Your task to perform on an android device: Show the shopping cart on target.com. Search for razer blade on target.com, select the first entry, and add it to the cart. Image 0: 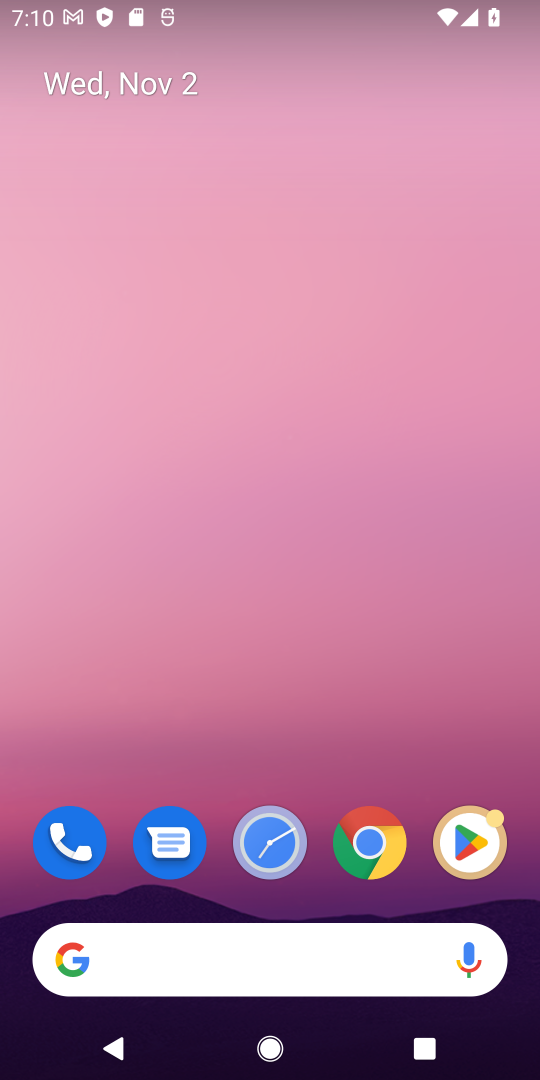
Step 0: drag from (300, 909) to (303, 197)
Your task to perform on an android device: Show the shopping cart on target.com. Search for razer blade on target.com, select the first entry, and add it to the cart. Image 1: 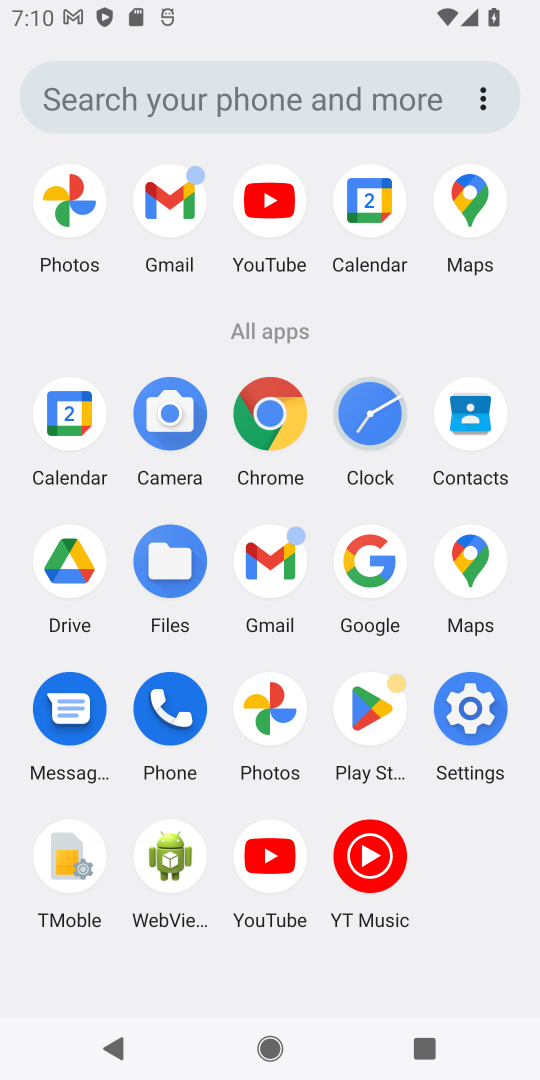
Step 1: click (351, 561)
Your task to perform on an android device: Show the shopping cart on target.com. Search for razer blade on target.com, select the first entry, and add it to the cart. Image 2: 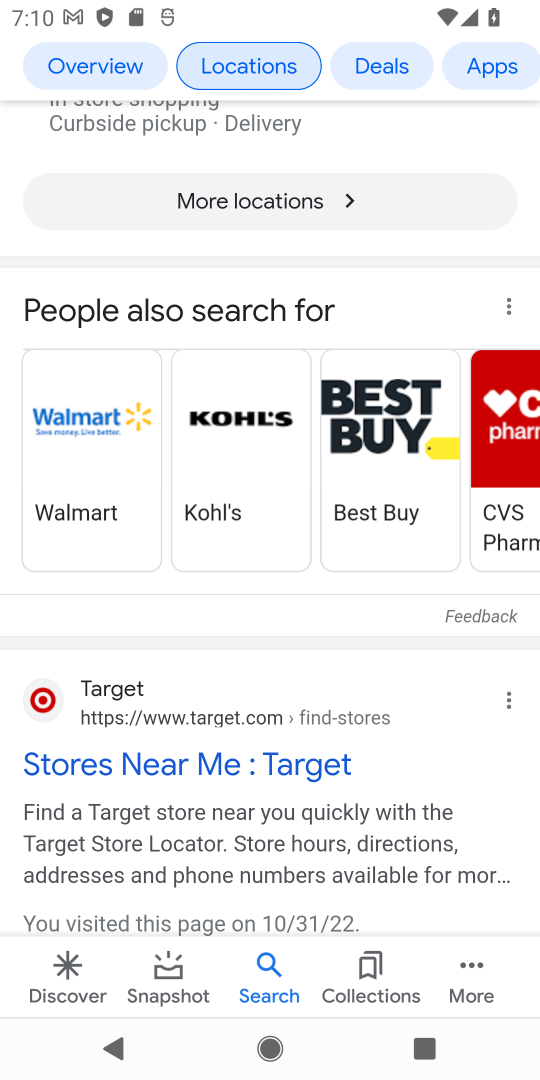
Step 2: drag from (193, 229) to (163, 547)
Your task to perform on an android device: Show the shopping cart on target.com. Search for razer blade on target.com, select the first entry, and add it to the cart. Image 3: 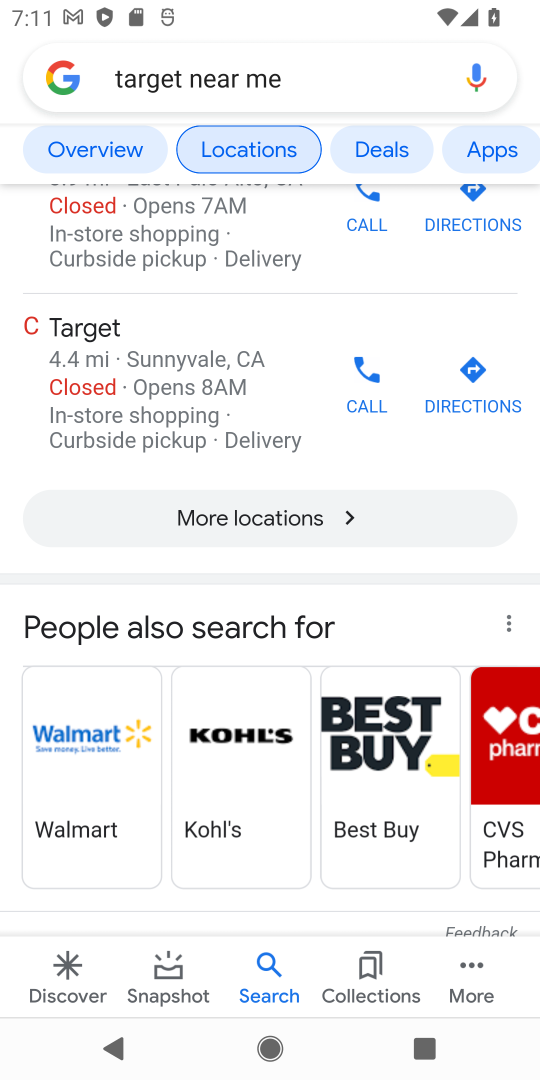
Step 3: click (321, 66)
Your task to perform on an android device: Show the shopping cart on target.com. Search for razer blade on target.com, select the first entry, and add it to the cart. Image 4: 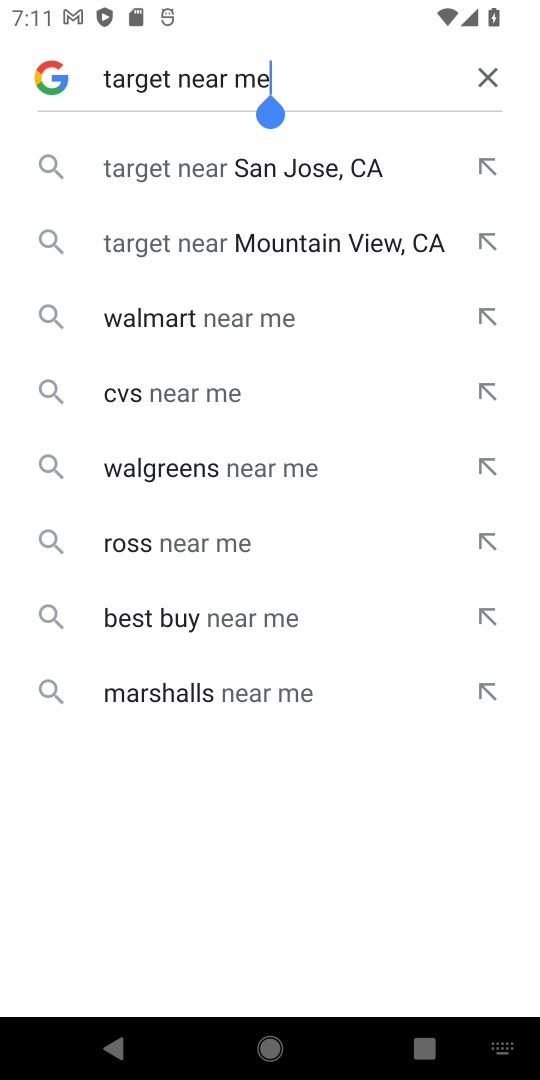
Step 4: click (482, 82)
Your task to perform on an android device: Show the shopping cart on target.com. Search for razer blade on target.com, select the first entry, and add it to the cart. Image 5: 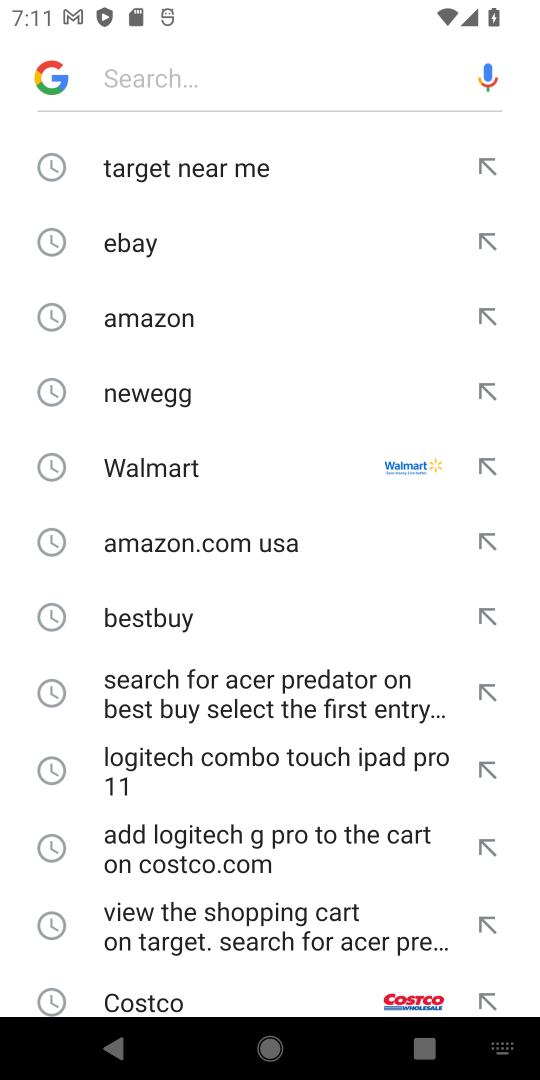
Step 5: click (152, 169)
Your task to perform on an android device: Show the shopping cart on target.com. Search for razer blade on target.com, select the first entry, and add it to the cart. Image 6: 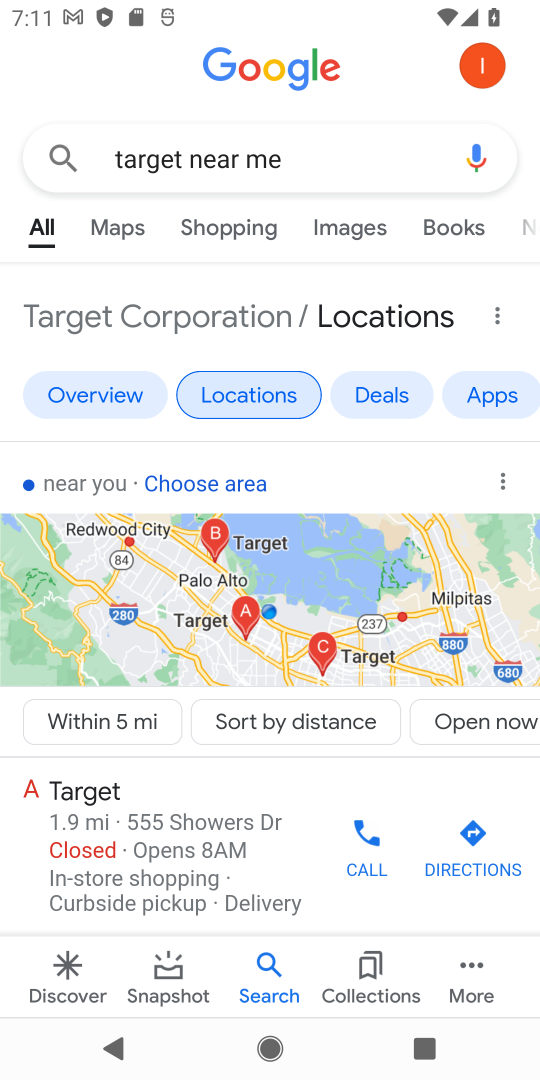
Step 6: drag from (123, 717) to (228, 204)
Your task to perform on an android device: Show the shopping cart on target.com. Search for razer blade on target.com, select the first entry, and add it to the cart. Image 7: 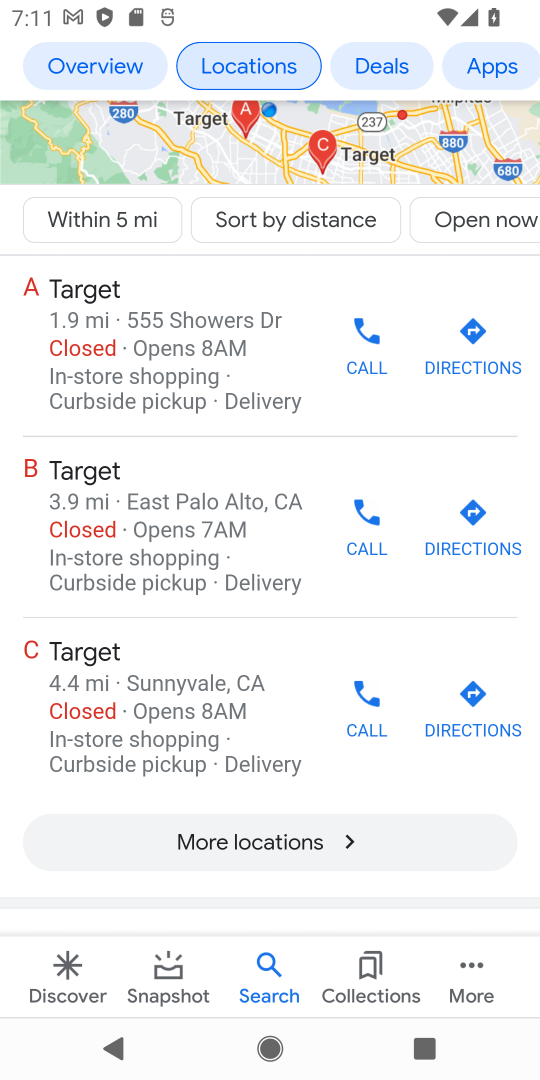
Step 7: drag from (81, 736) to (180, 349)
Your task to perform on an android device: Show the shopping cart on target.com. Search for razer blade on target.com, select the first entry, and add it to the cart. Image 8: 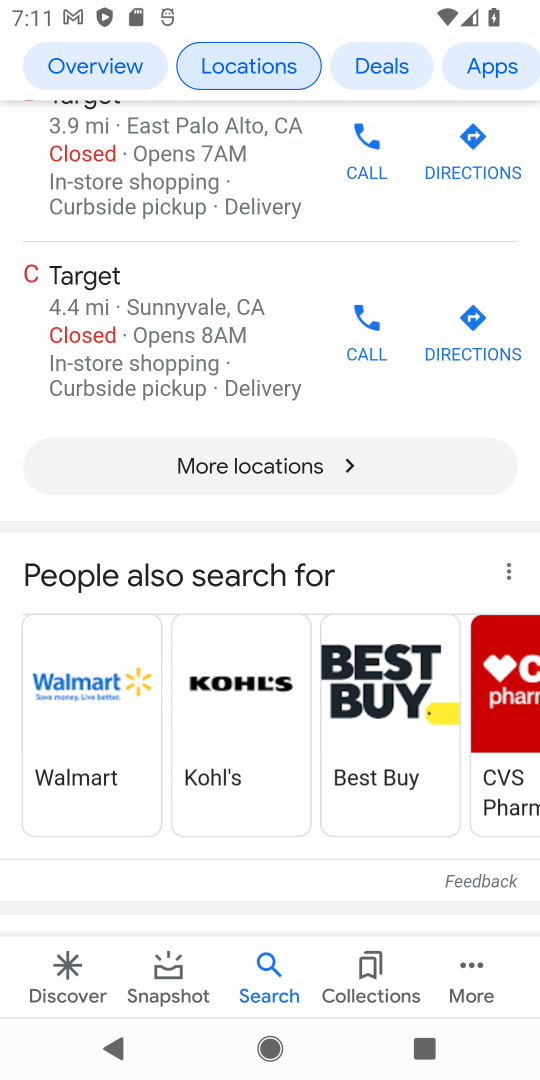
Step 8: drag from (103, 752) to (301, 178)
Your task to perform on an android device: Show the shopping cart on target.com. Search for razer blade on target.com, select the first entry, and add it to the cart. Image 9: 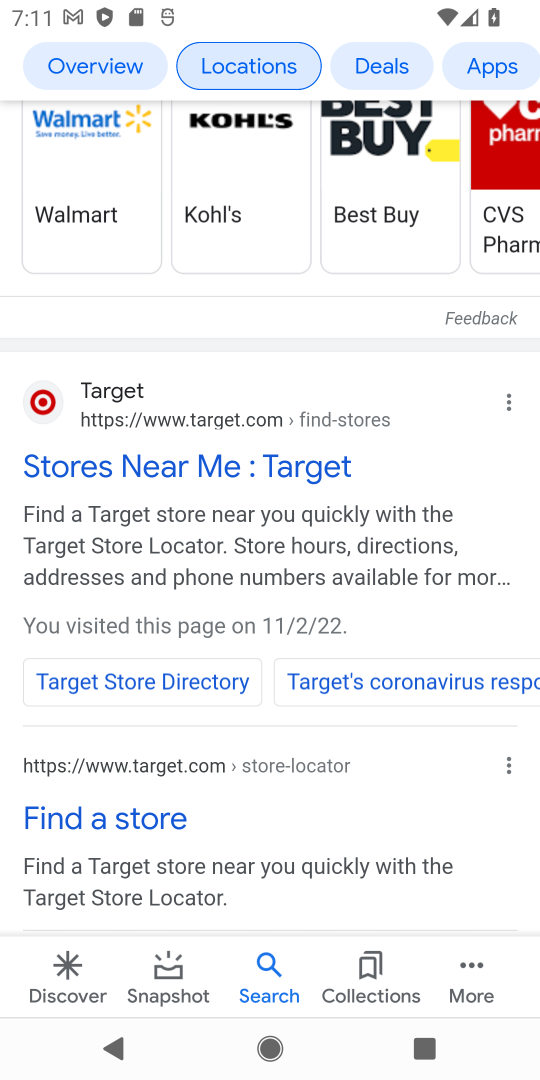
Step 9: click (40, 397)
Your task to perform on an android device: Show the shopping cart on target.com. Search for razer blade on target.com, select the first entry, and add it to the cart. Image 10: 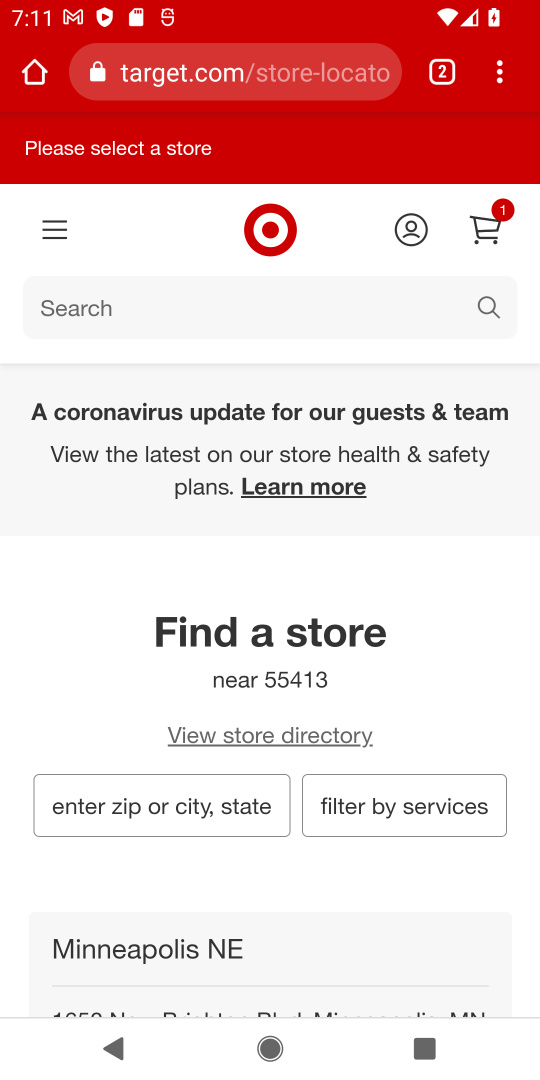
Step 10: click (137, 294)
Your task to perform on an android device: Show the shopping cart on target.com. Search for razer blade on target.com, select the first entry, and add it to the cart. Image 11: 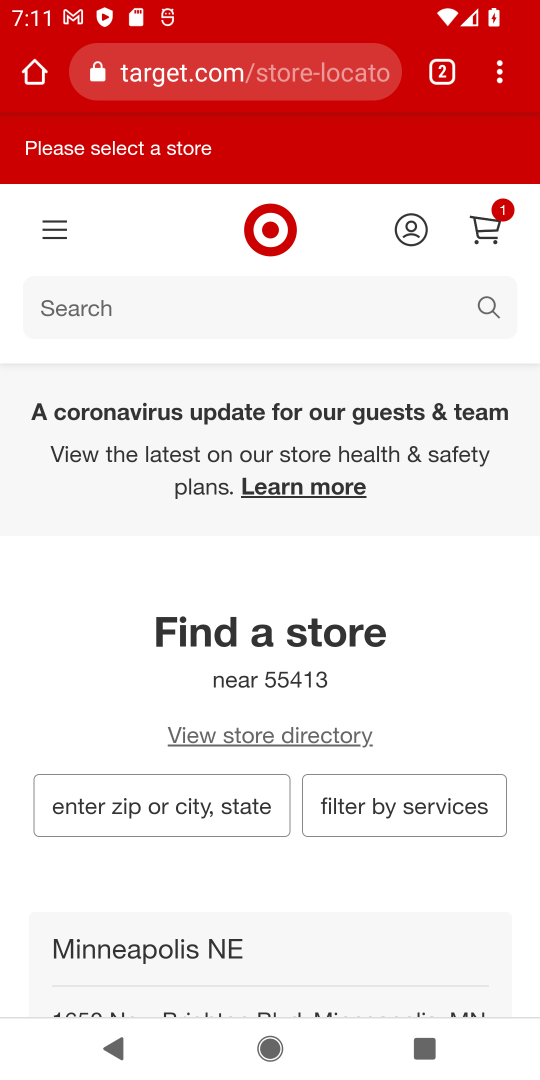
Step 11: click (111, 291)
Your task to perform on an android device: Show the shopping cart on target.com. Search for razer blade on target.com, select the first entry, and add it to the cart. Image 12: 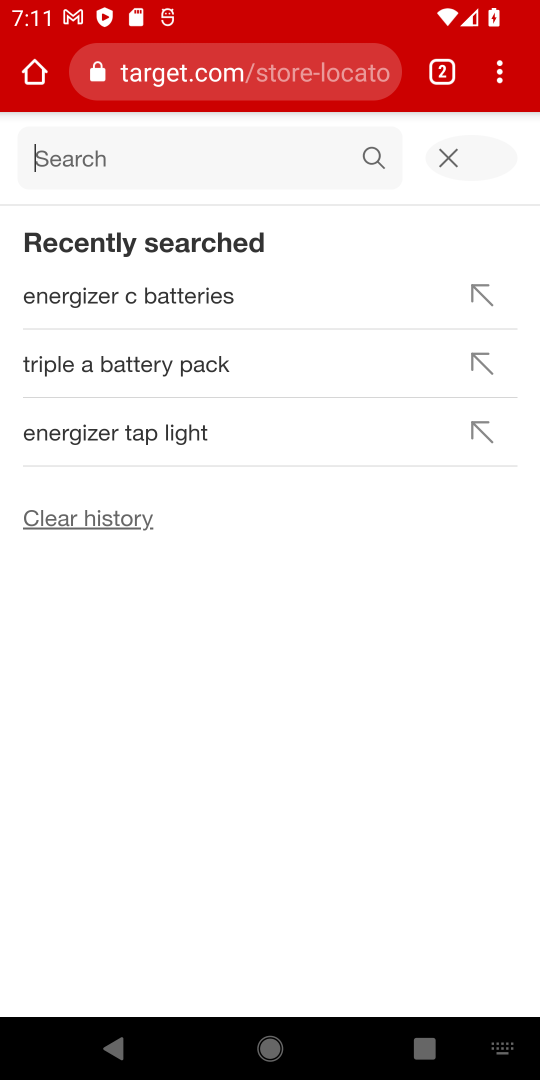
Step 12: click (98, 143)
Your task to perform on an android device: Show the shopping cart on target.com. Search for razer blade on target.com, select the first entry, and add it to the cart. Image 13: 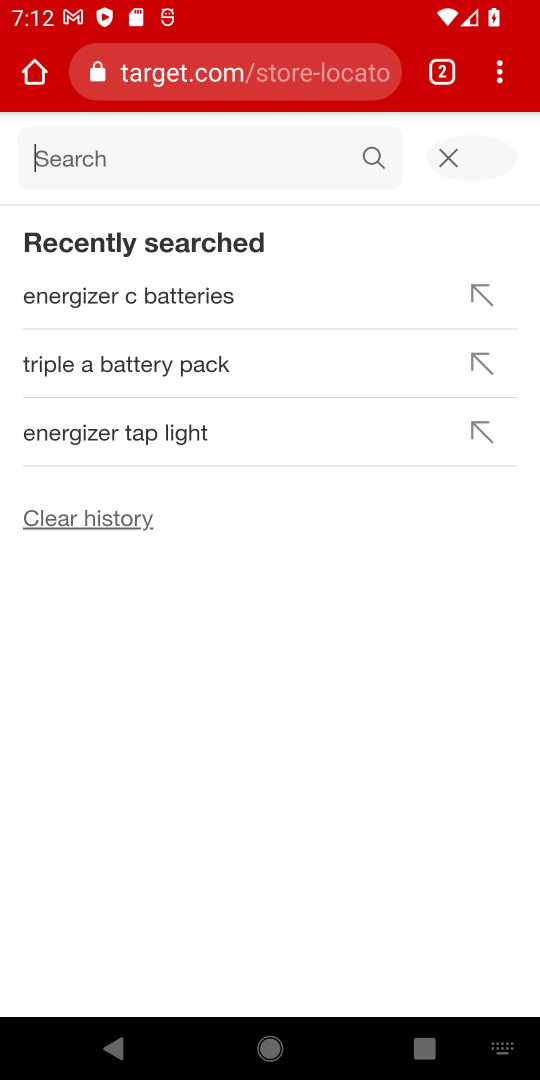
Step 13: type "razer blade "
Your task to perform on an android device: Show the shopping cart on target.com. Search for razer blade on target.com, select the first entry, and add it to the cart. Image 14: 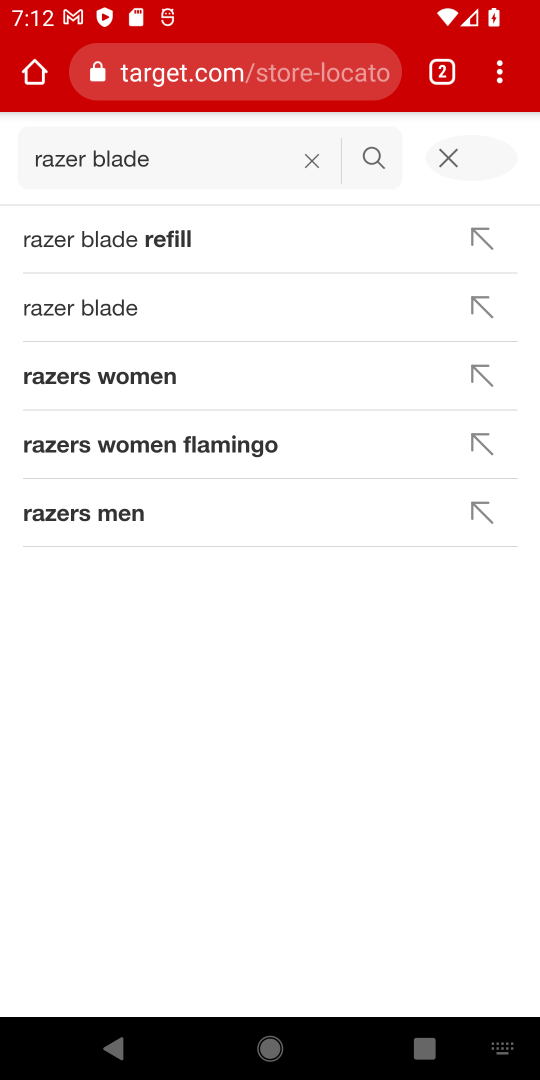
Step 14: click (484, 317)
Your task to perform on an android device: Show the shopping cart on target.com. Search for razer blade on target.com, select the first entry, and add it to the cart. Image 15: 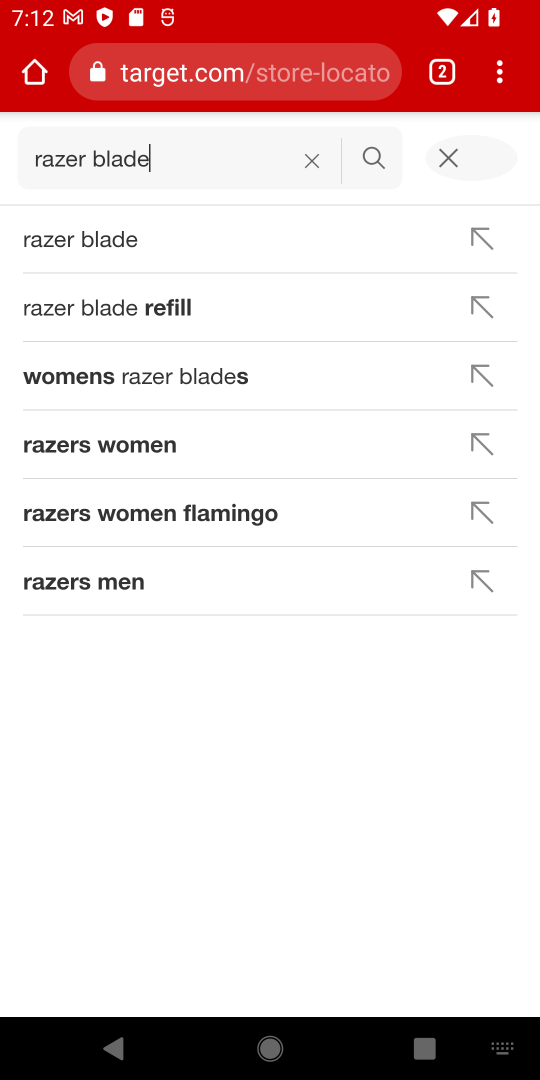
Step 15: click (471, 242)
Your task to perform on an android device: Show the shopping cart on target.com. Search for razer blade on target.com, select the first entry, and add it to the cart. Image 16: 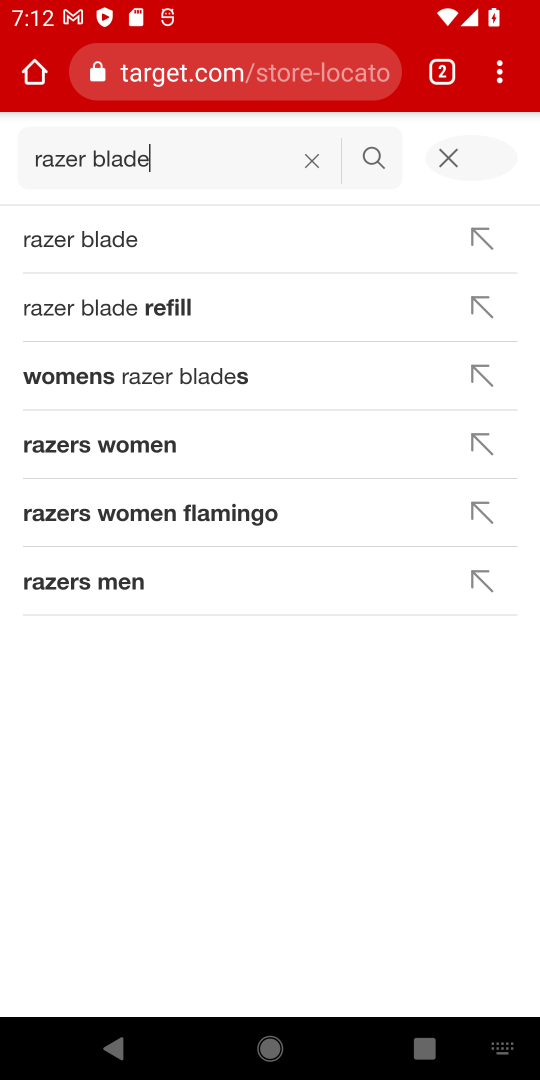
Step 16: click (95, 247)
Your task to perform on an android device: Show the shopping cart on target.com. Search for razer blade on target.com, select the first entry, and add it to the cart. Image 17: 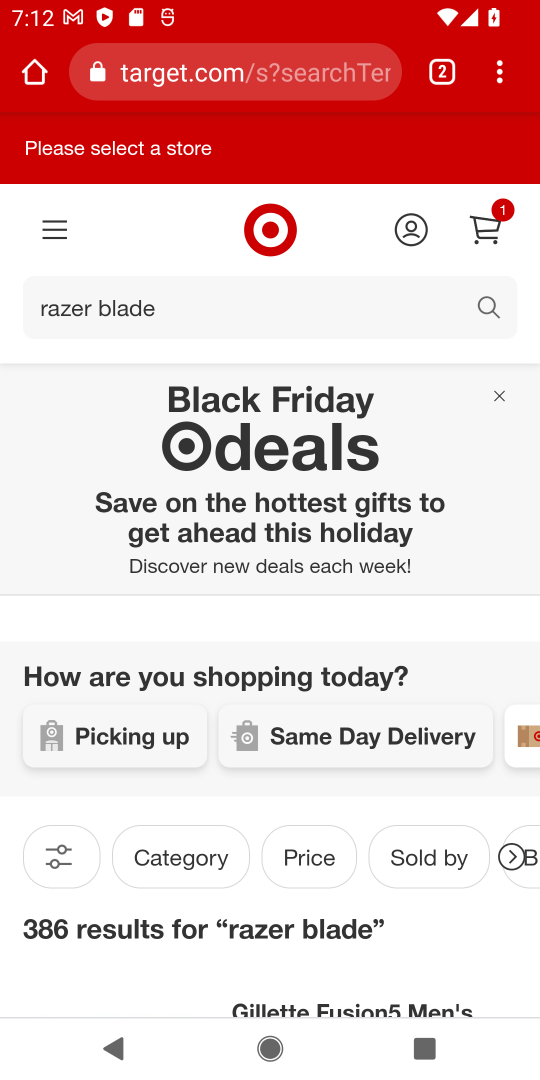
Step 17: drag from (228, 754) to (322, 617)
Your task to perform on an android device: Show the shopping cart on target.com. Search for razer blade on target.com, select the first entry, and add it to the cart. Image 18: 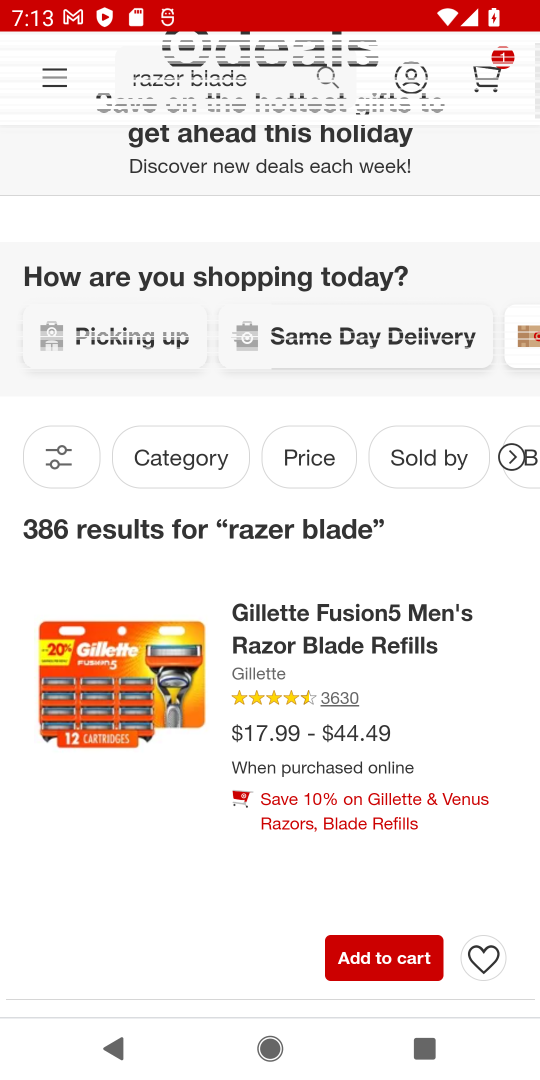
Step 18: click (374, 957)
Your task to perform on an android device: Show the shopping cart on target.com. Search for razer blade on target.com, select the first entry, and add it to the cart. Image 19: 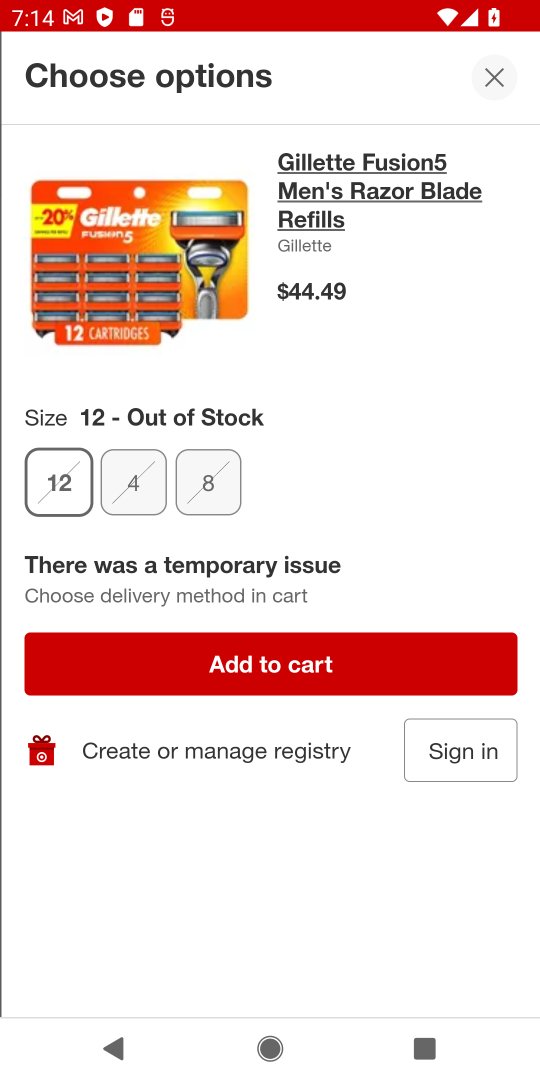
Step 19: task complete